Your task to perform on an android device: Open Android settings Image 0: 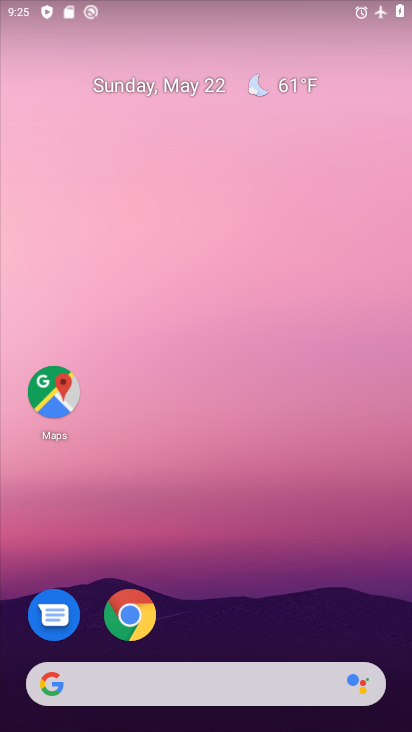
Step 0: drag from (195, 613) to (220, 7)
Your task to perform on an android device: Open Android settings Image 1: 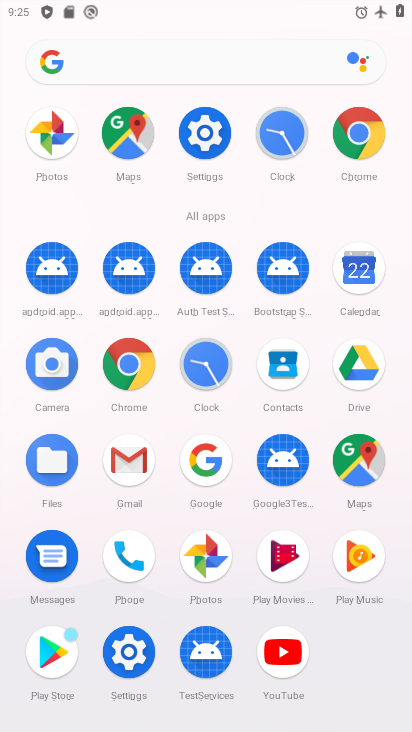
Step 1: click (203, 148)
Your task to perform on an android device: Open Android settings Image 2: 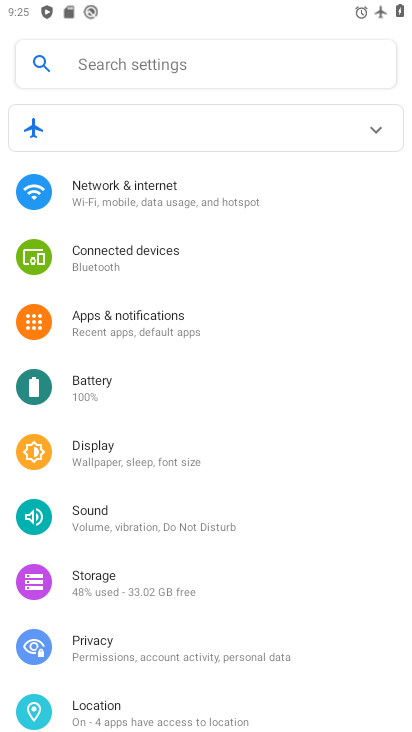
Step 2: drag from (196, 676) to (175, 219)
Your task to perform on an android device: Open Android settings Image 3: 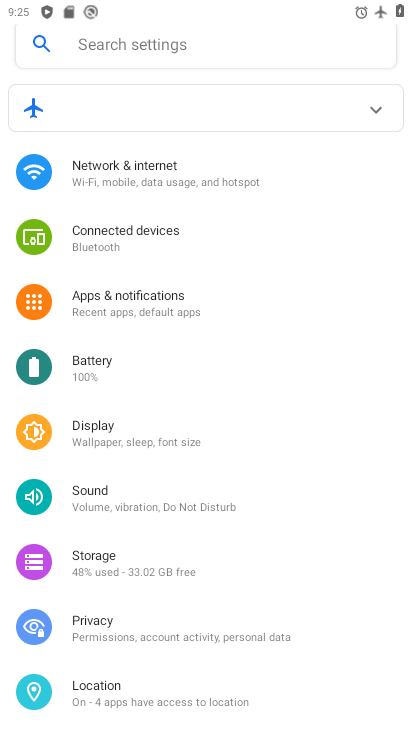
Step 3: drag from (177, 662) to (179, 357)
Your task to perform on an android device: Open Android settings Image 4: 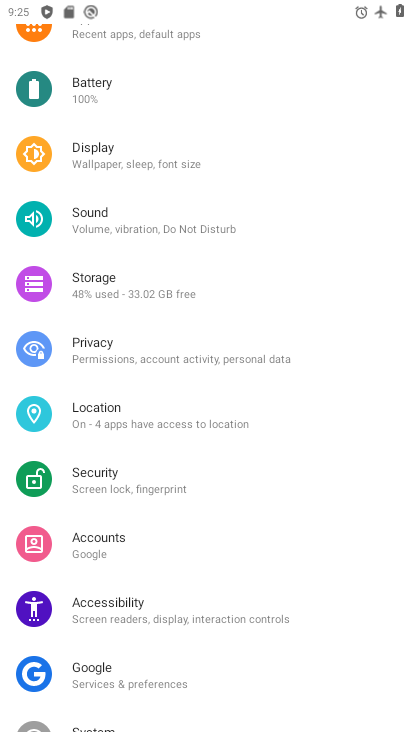
Step 4: drag from (150, 686) to (213, 360)
Your task to perform on an android device: Open Android settings Image 5: 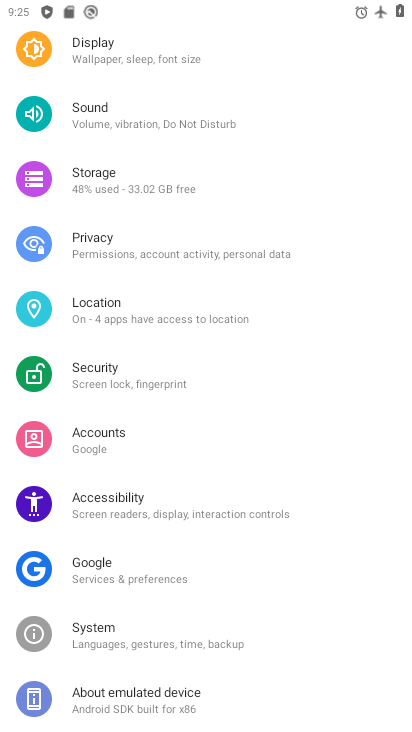
Step 5: click (156, 702)
Your task to perform on an android device: Open Android settings Image 6: 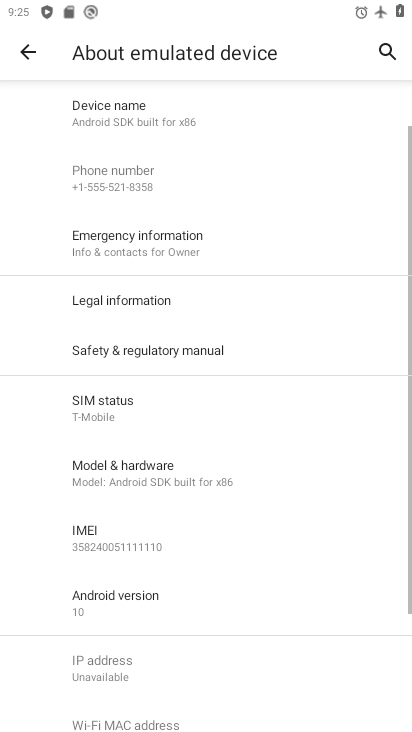
Step 6: click (151, 614)
Your task to perform on an android device: Open Android settings Image 7: 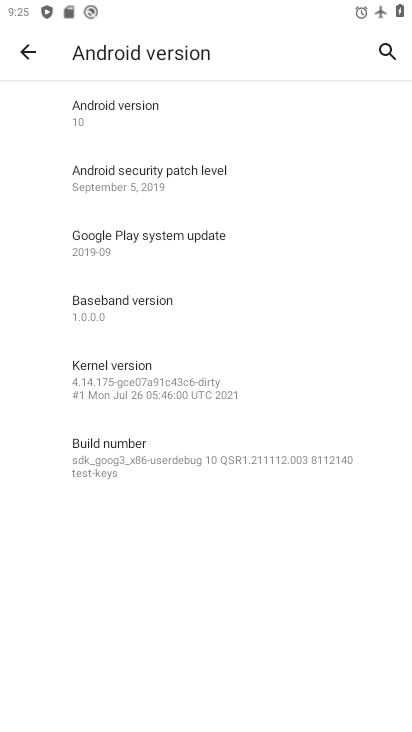
Step 7: task complete